Your task to perform on an android device: find which apps use the phone's location Image 0: 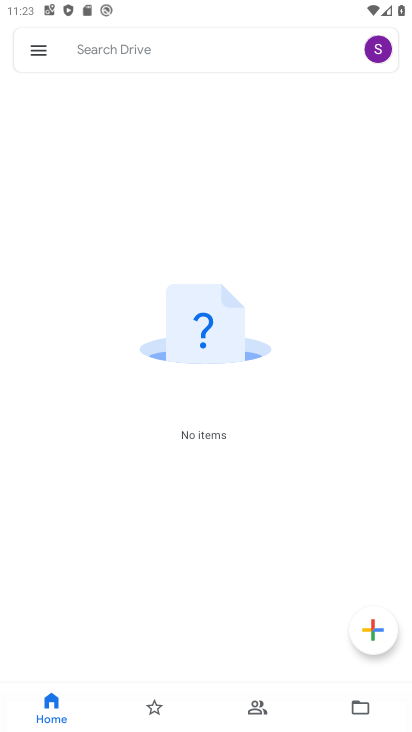
Step 0: press home button
Your task to perform on an android device: find which apps use the phone's location Image 1: 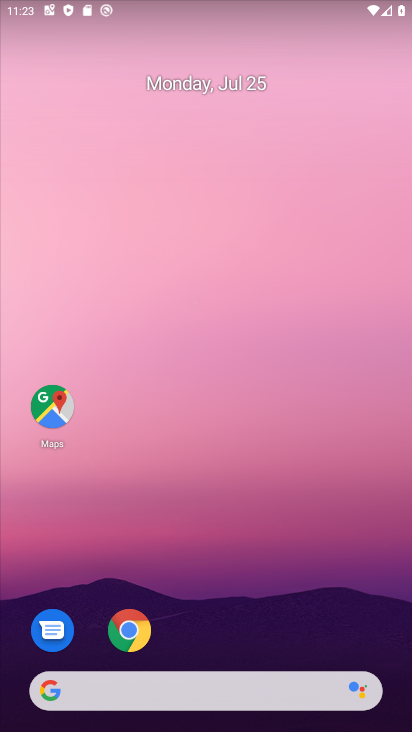
Step 1: drag from (376, 610) to (371, 146)
Your task to perform on an android device: find which apps use the phone's location Image 2: 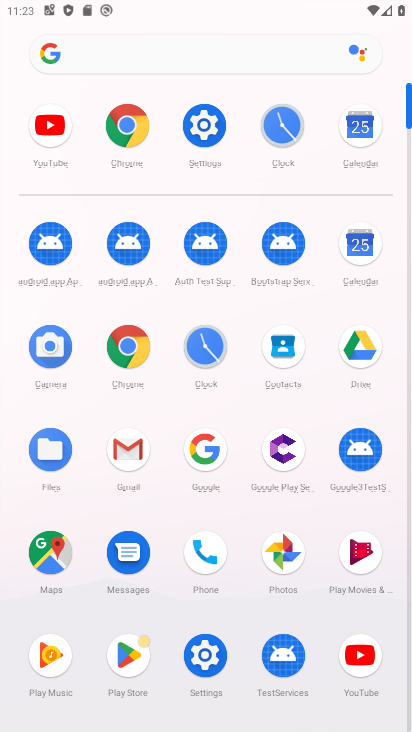
Step 2: click (204, 131)
Your task to perform on an android device: find which apps use the phone's location Image 3: 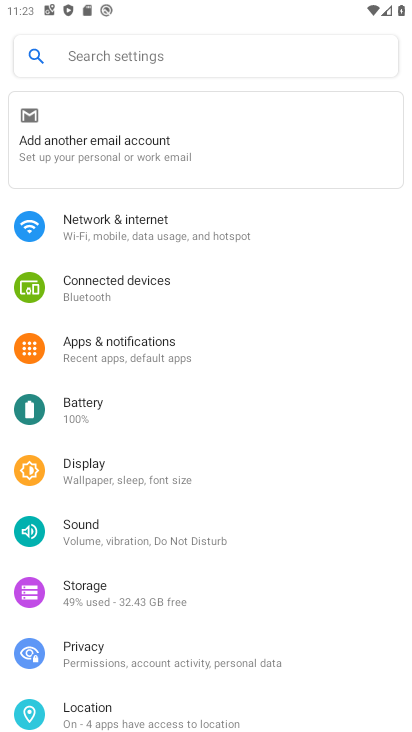
Step 3: drag from (314, 420) to (325, 311)
Your task to perform on an android device: find which apps use the phone's location Image 4: 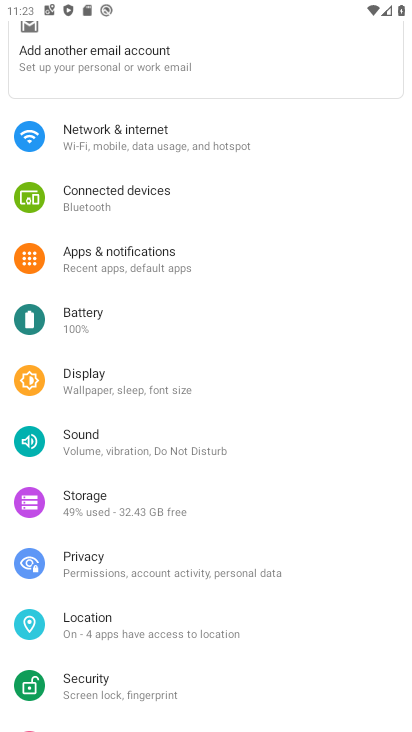
Step 4: drag from (331, 434) to (334, 345)
Your task to perform on an android device: find which apps use the phone's location Image 5: 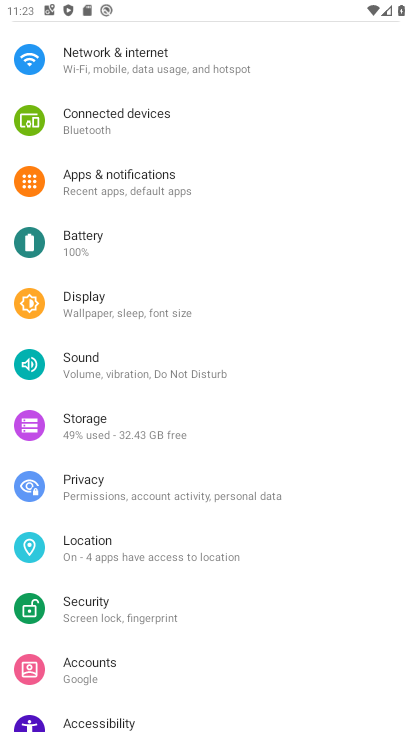
Step 5: drag from (330, 451) to (335, 350)
Your task to perform on an android device: find which apps use the phone's location Image 6: 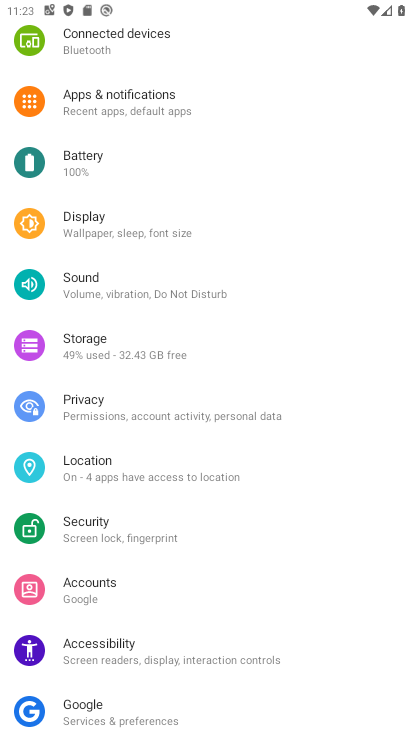
Step 6: drag from (329, 473) to (334, 376)
Your task to perform on an android device: find which apps use the phone's location Image 7: 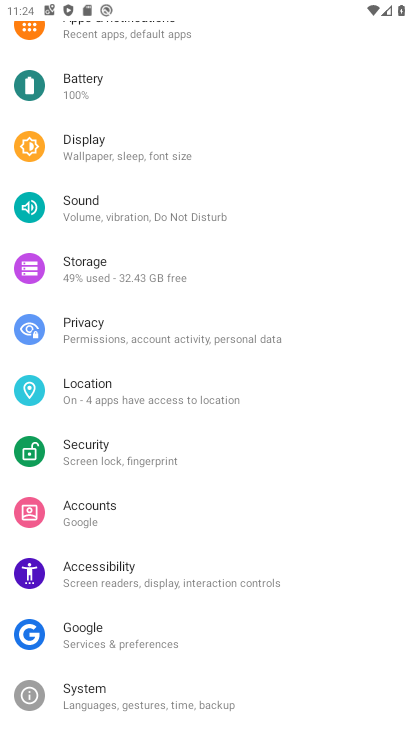
Step 7: drag from (343, 503) to (343, 381)
Your task to perform on an android device: find which apps use the phone's location Image 8: 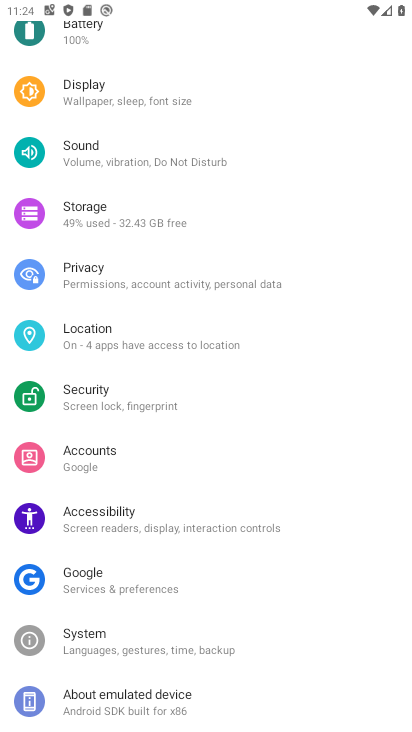
Step 8: drag from (337, 495) to (344, 374)
Your task to perform on an android device: find which apps use the phone's location Image 9: 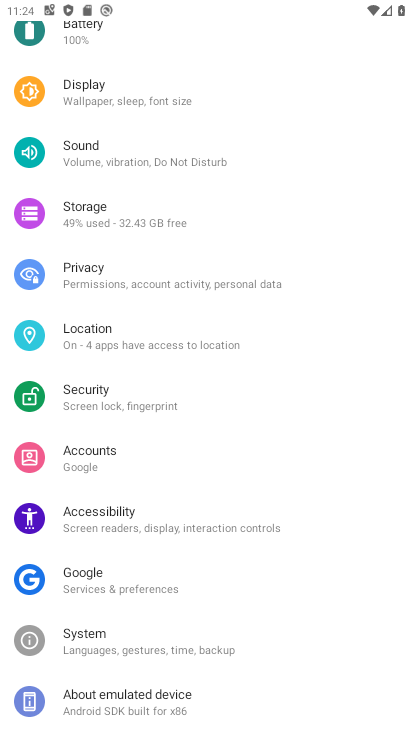
Step 9: drag from (333, 248) to (335, 328)
Your task to perform on an android device: find which apps use the phone's location Image 10: 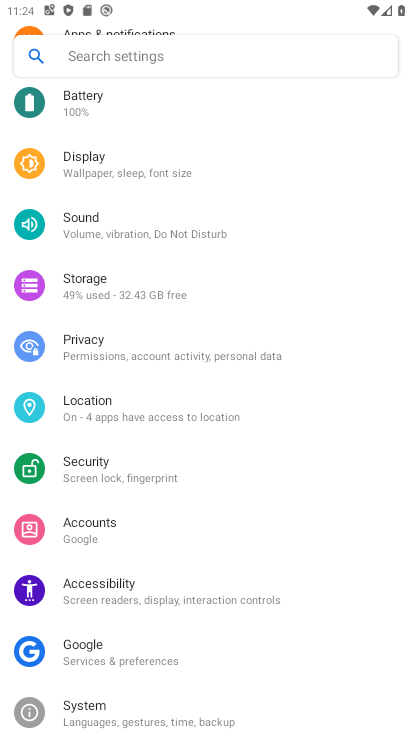
Step 10: drag from (337, 187) to (346, 309)
Your task to perform on an android device: find which apps use the phone's location Image 11: 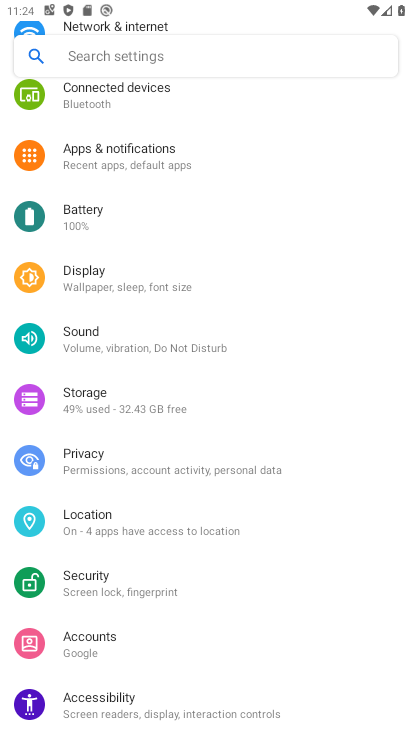
Step 11: drag from (332, 190) to (332, 315)
Your task to perform on an android device: find which apps use the phone's location Image 12: 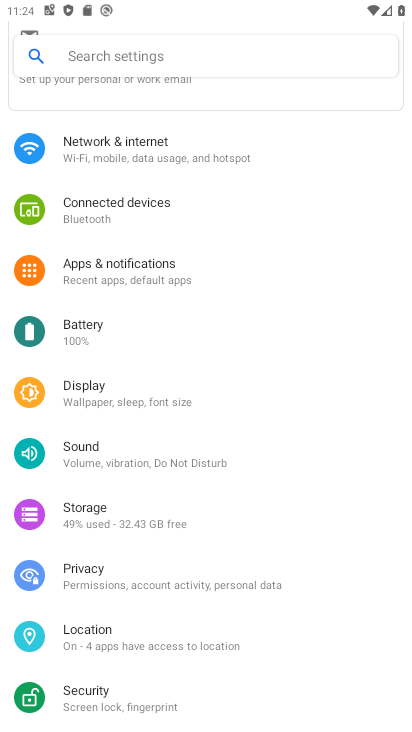
Step 12: click (242, 641)
Your task to perform on an android device: find which apps use the phone's location Image 13: 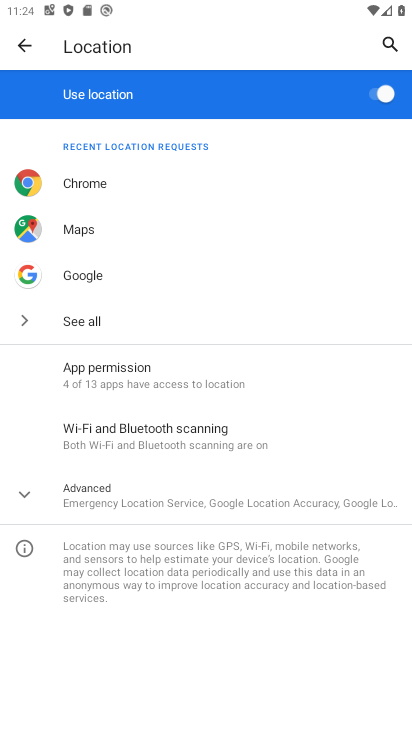
Step 13: click (221, 367)
Your task to perform on an android device: find which apps use the phone's location Image 14: 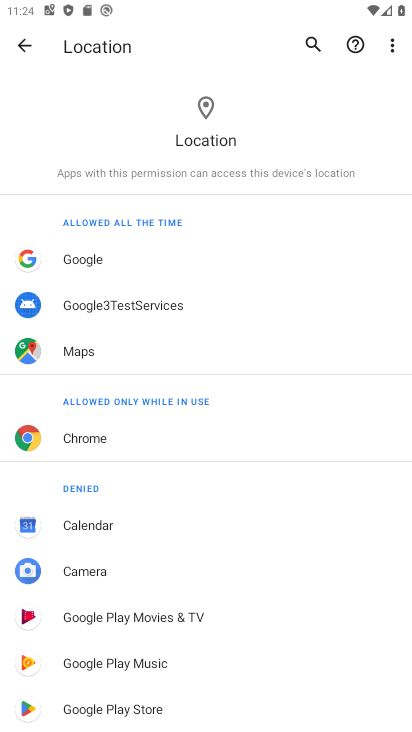
Step 14: drag from (320, 482) to (326, 397)
Your task to perform on an android device: find which apps use the phone's location Image 15: 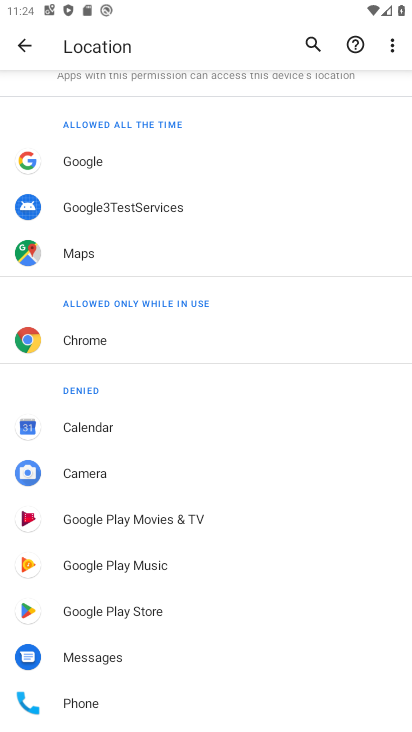
Step 15: drag from (311, 524) to (310, 397)
Your task to perform on an android device: find which apps use the phone's location Image 16: 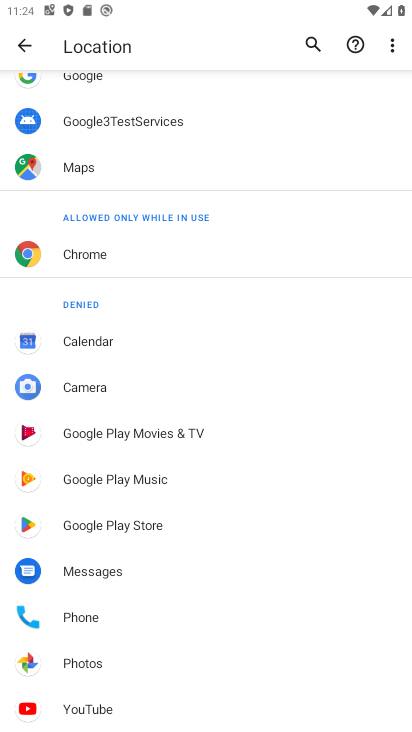
Step 16: click (155, 663)
Your task to perform on an android device: find which apps use the phone's location Image 17: 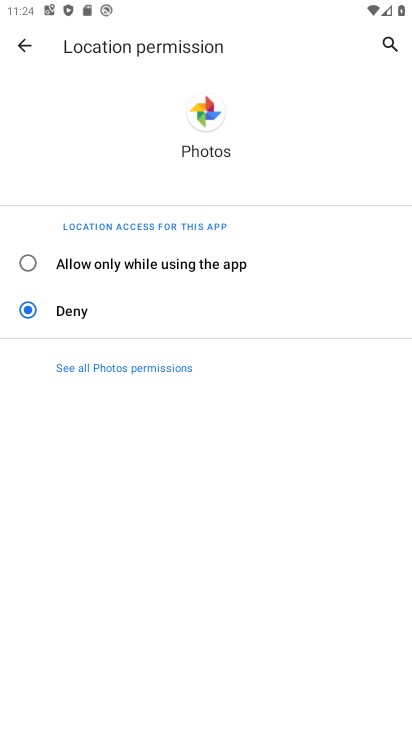
Step 17: click (191, 262)
Your task to perform on an android device: find which apps use the phone's location Image 18: 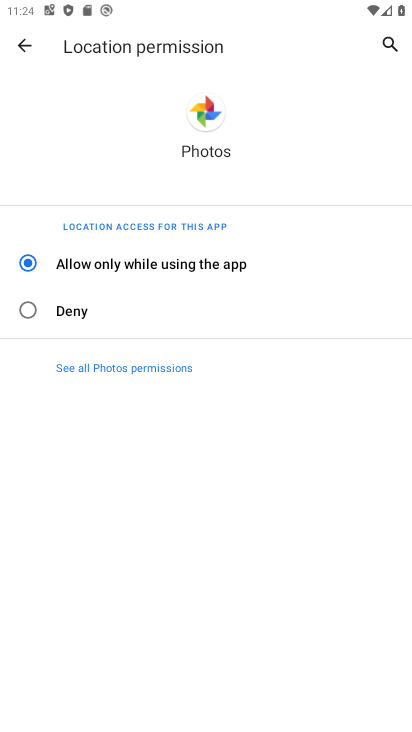
Step 18: task complete